Your task to perform on an android device: uninstall "Instagram" Image 0: 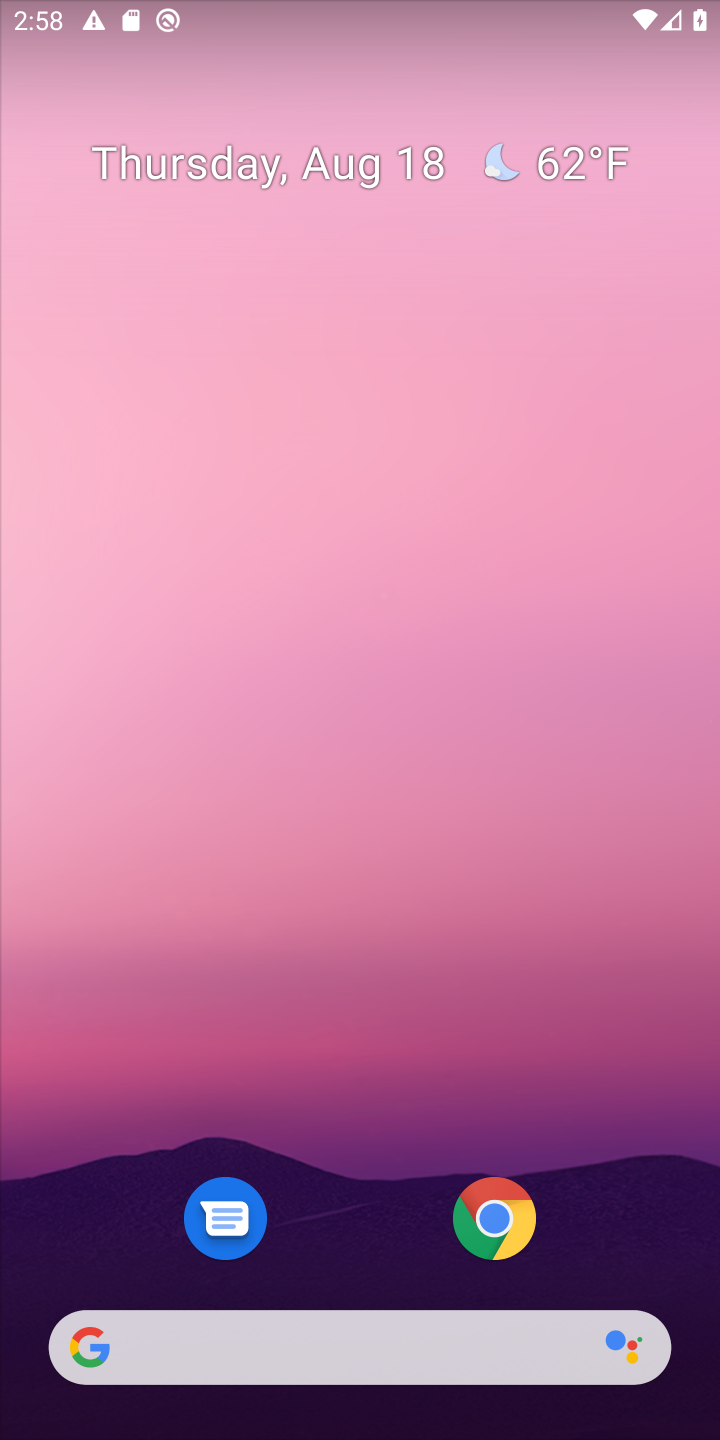
Step 0: drag from (396, 856) to (354, 489)
Your task to perform on an android device: uninstall "Instagram" Image 1: 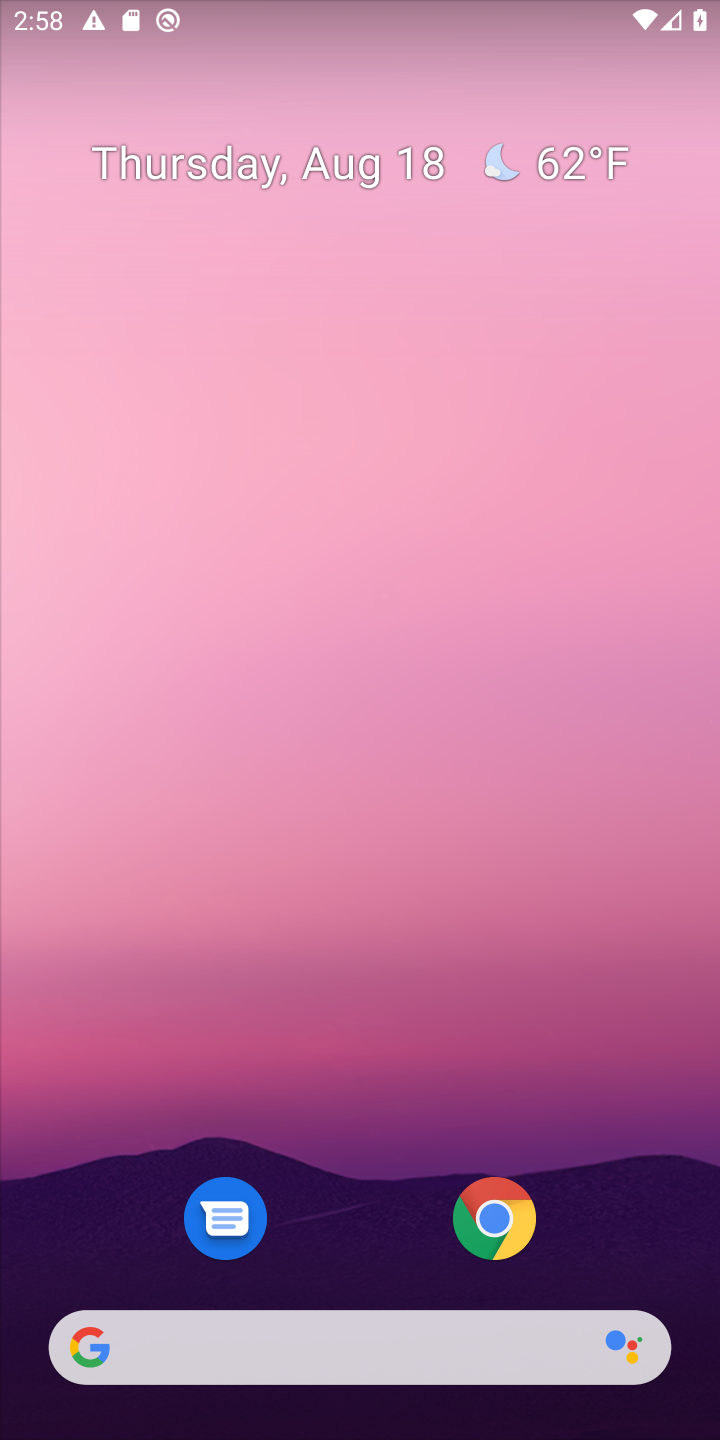
Step 1: drag from (377, 1136) to (361, 418)
Your task to perform on an android device: uninstall "Instagram" Image 2: 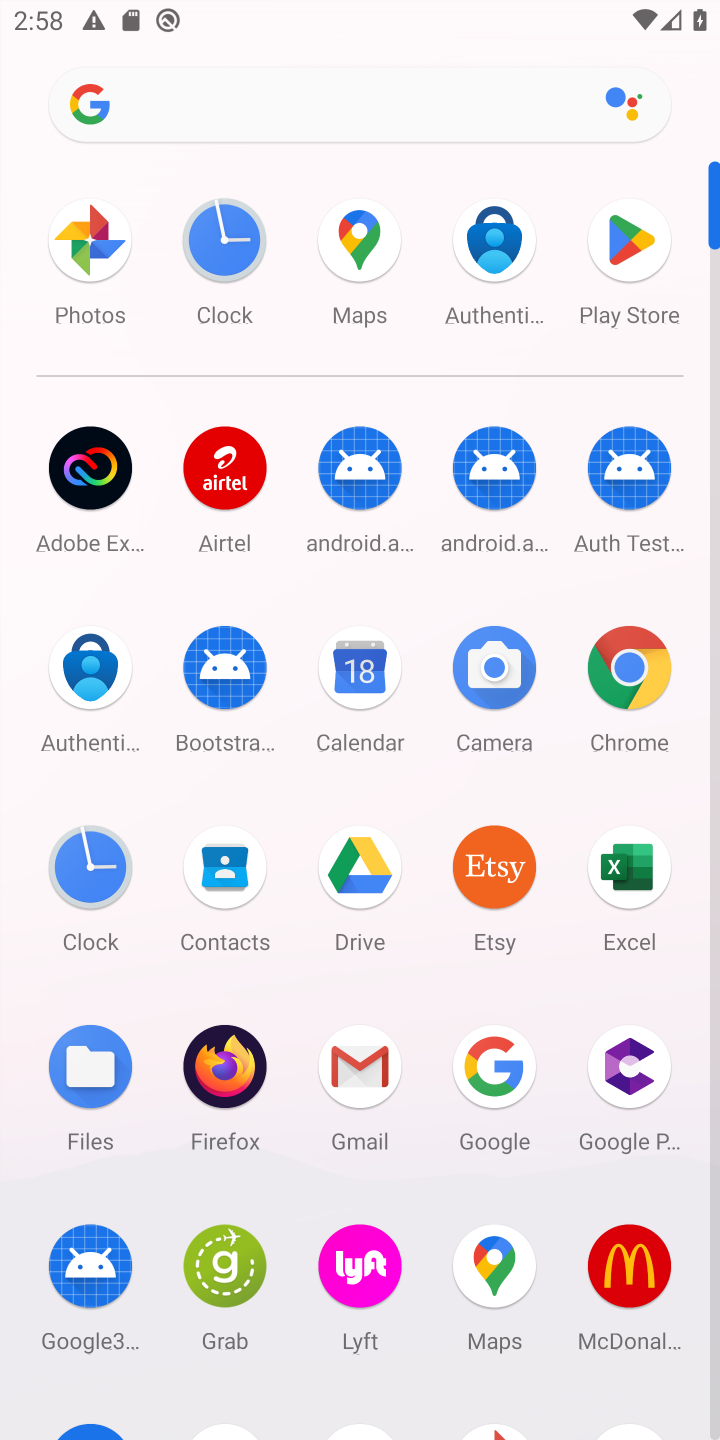
Step 2: click (621, 259)
Your task to perform on an android device: uninstall "Instagram" Image 3: 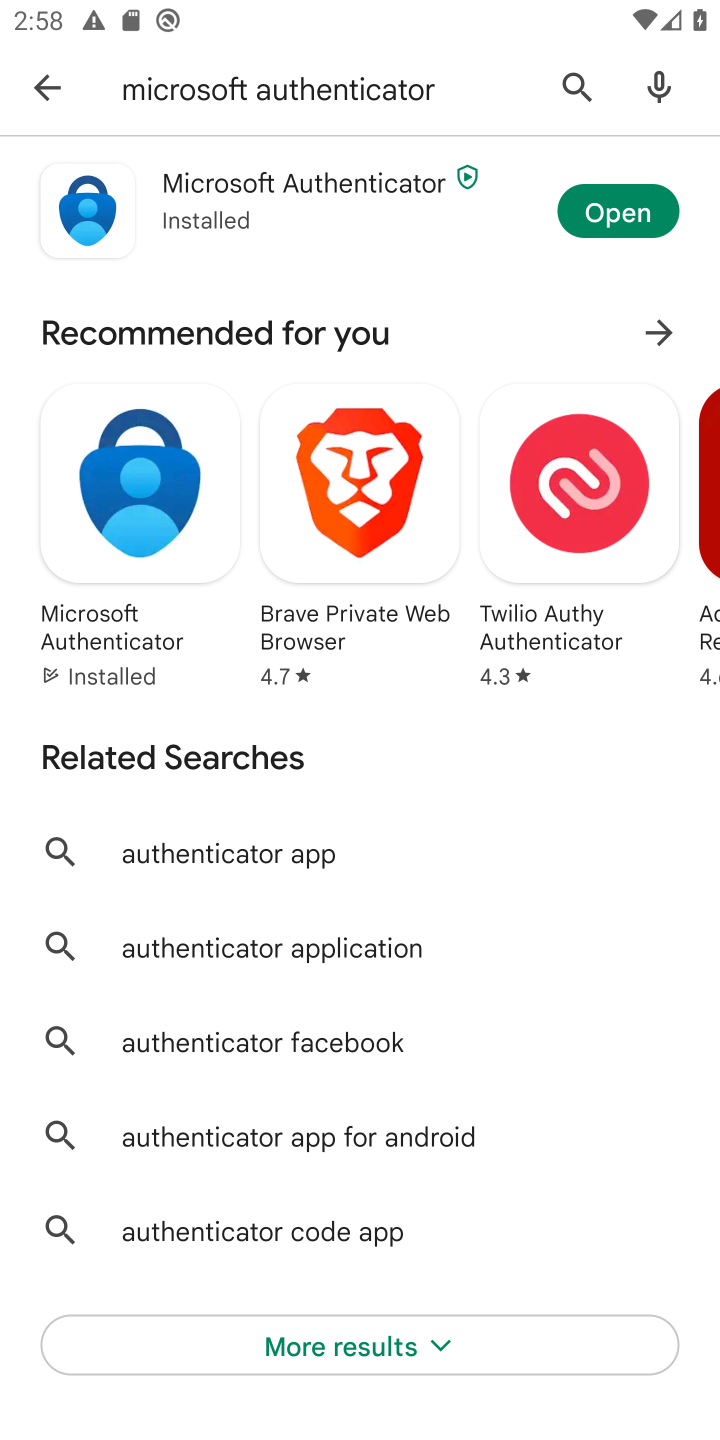
Step 3: click (576, 85)
Your task to perform on an android device: uninstall "Instagram" Image 4: 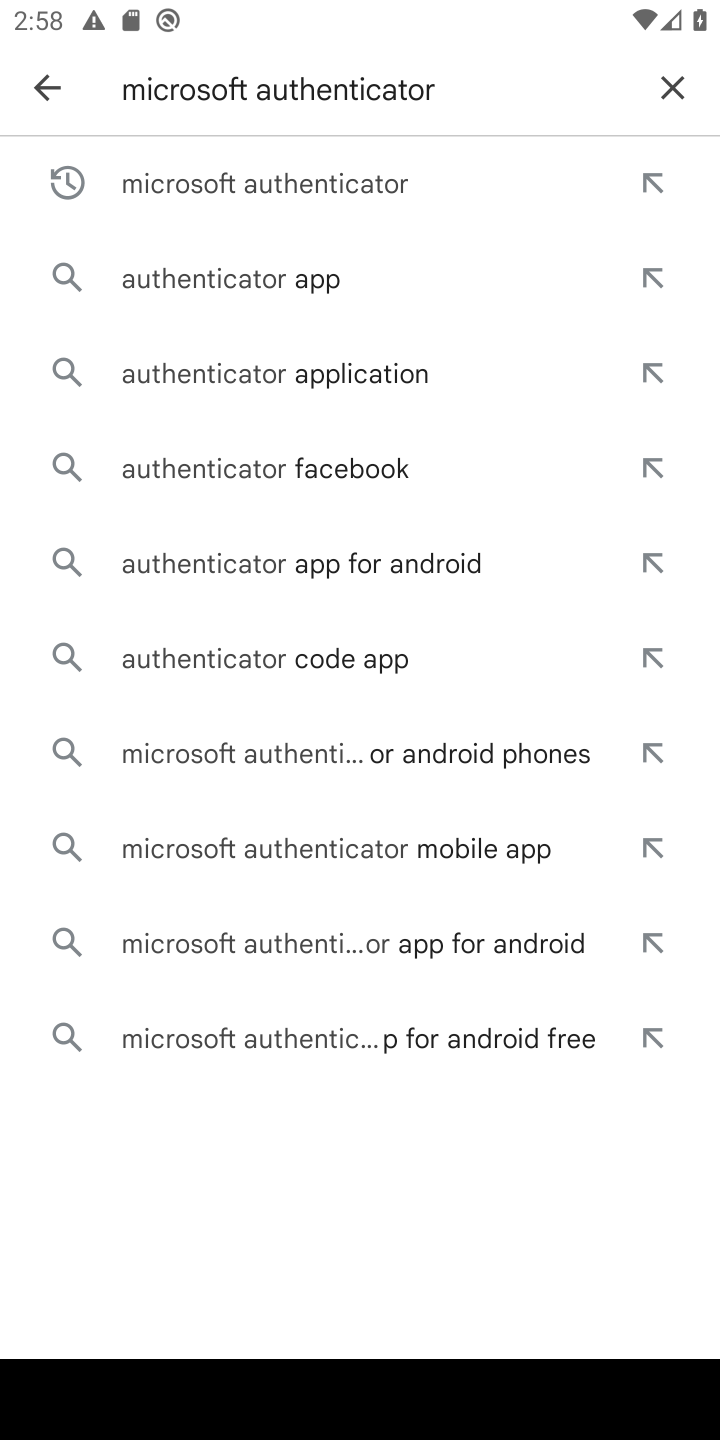
Step 4: click (673, 81)
Your task to perform on an android device: uninstall "Instagram" Image 5: 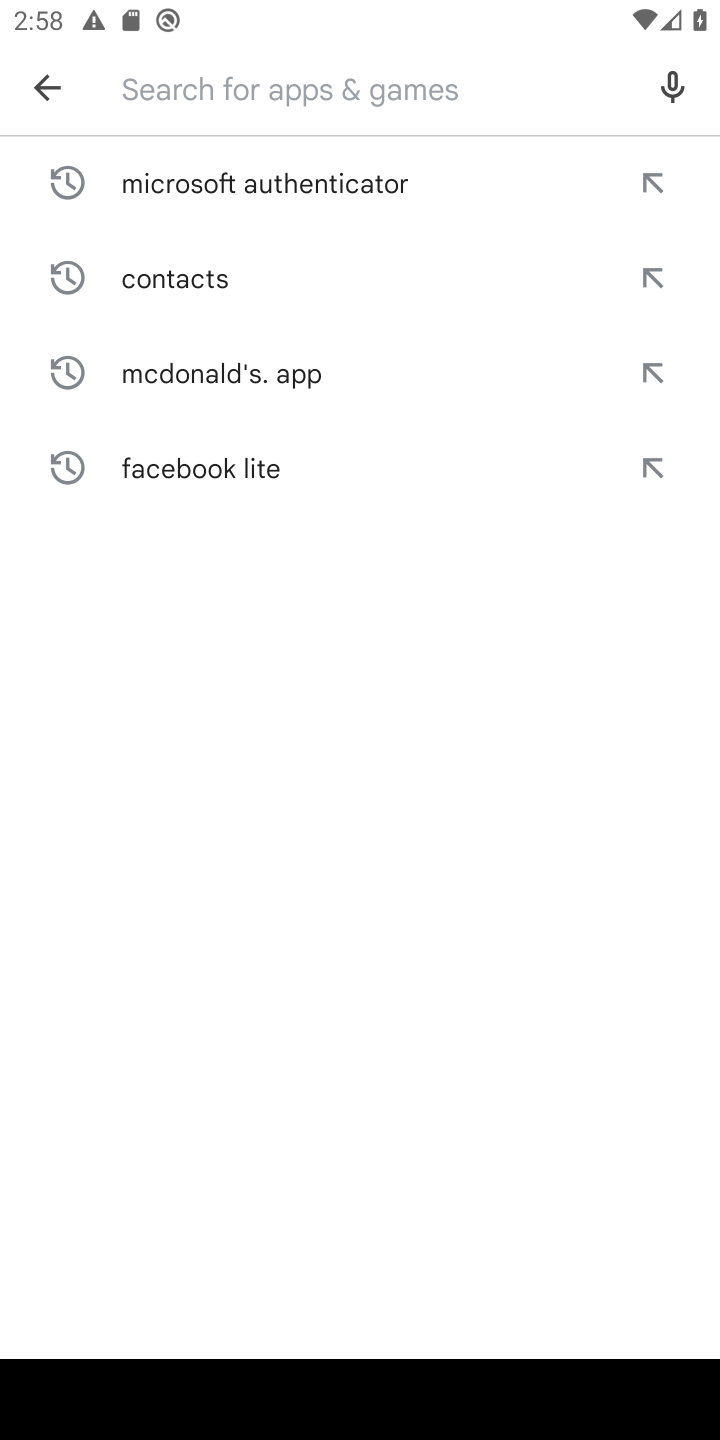
Step 5: type "Instagram"
Your task to perform on an android device: uninstall "Instagram" Image 6: 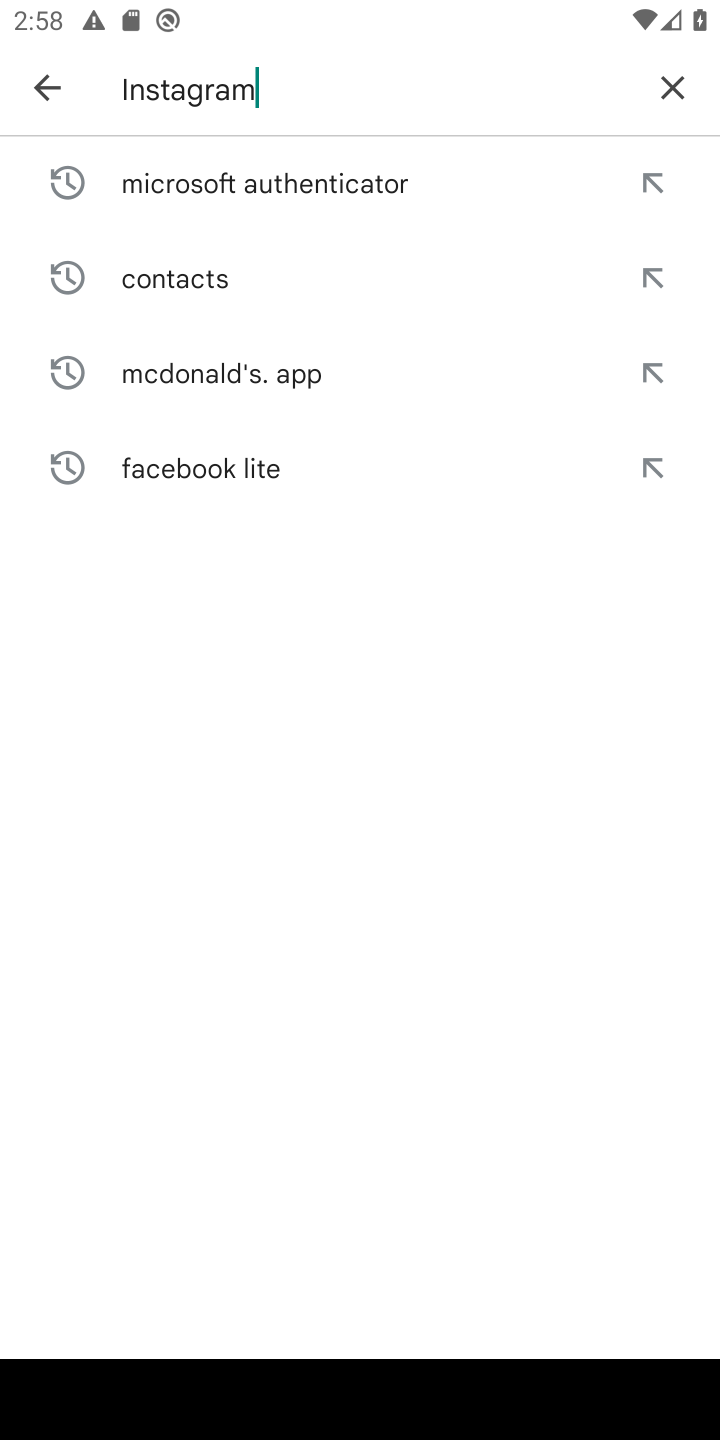
Step 6: type ""
Your task to perform on an android device: uninstall "Instagram" Image 7: 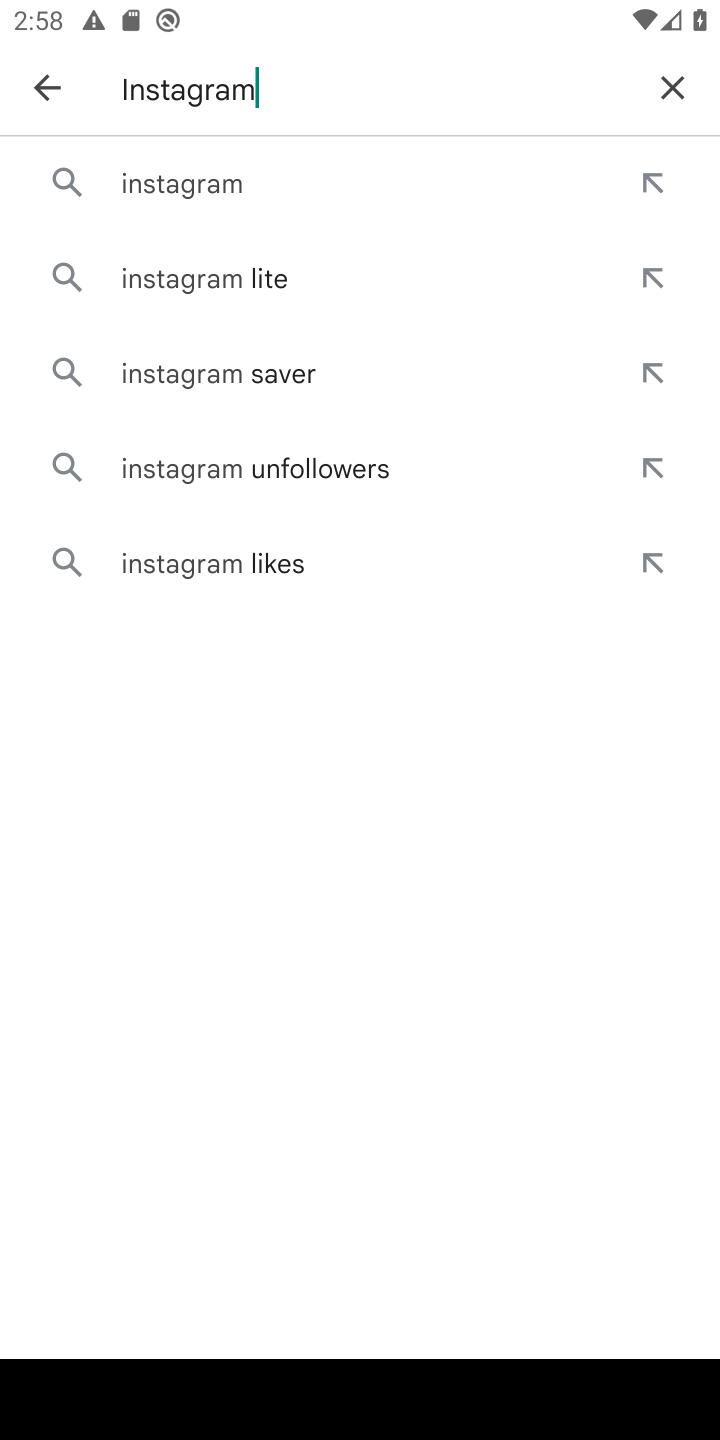
Step 7: click (246, 186)
Your task to perform on an android device: uninstall "Instagram" Image 8: 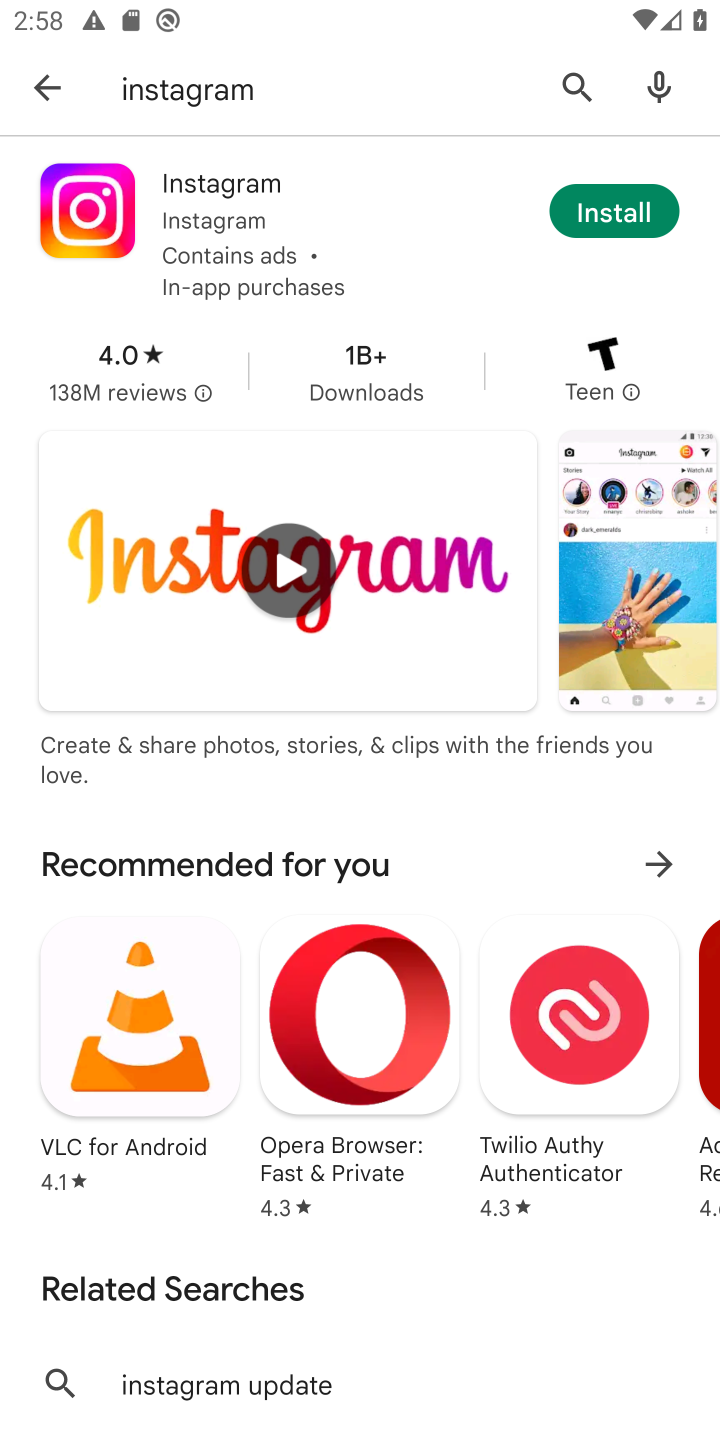
Step 8: task complete